Your task to perform on an android device: change keyboard looks Image 0: 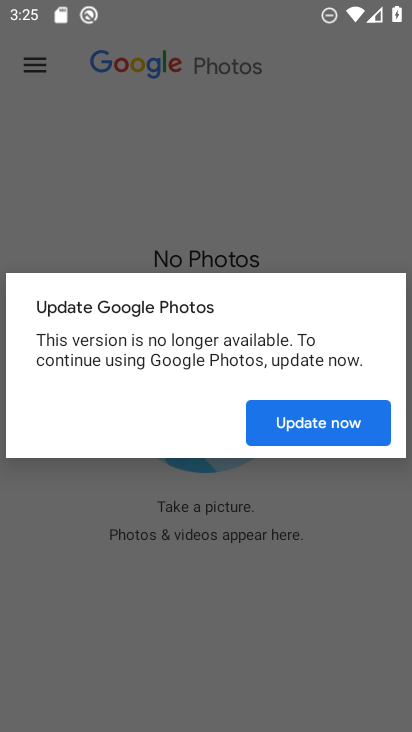
Step 0: press home button
Your task to perform on an android device: change keyboard looks Image 1: 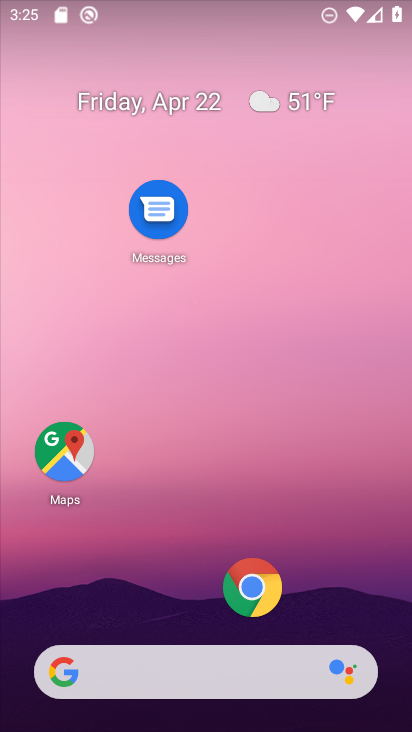
Step 1: drag from (199, 591) to (257, 147)
Your task to perform on an android device: change keyboard looks Image 2: 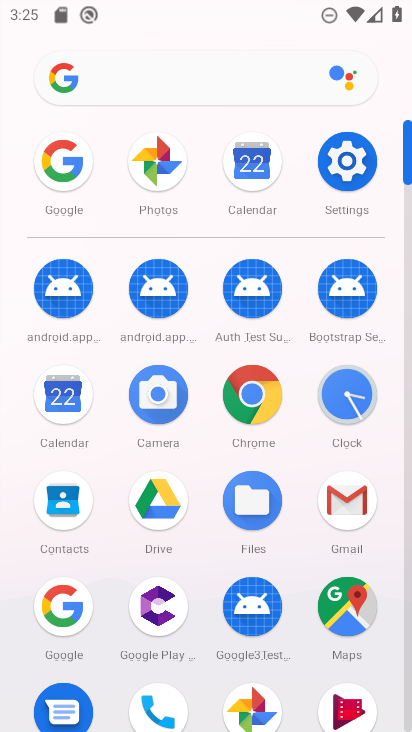
Step 2: click (332, 172)
Your task to perform on an android device: change keyboard looks Image 3: 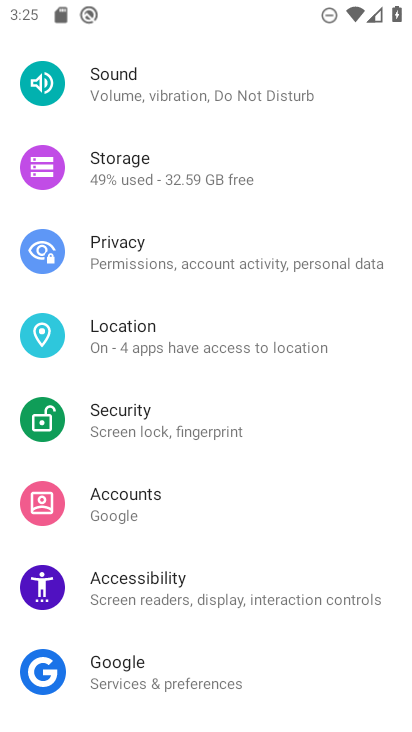
Step 3: drag from (245, 479) to (277, 294)
Your task to perform on an android device: change keyboard looks Image 4: 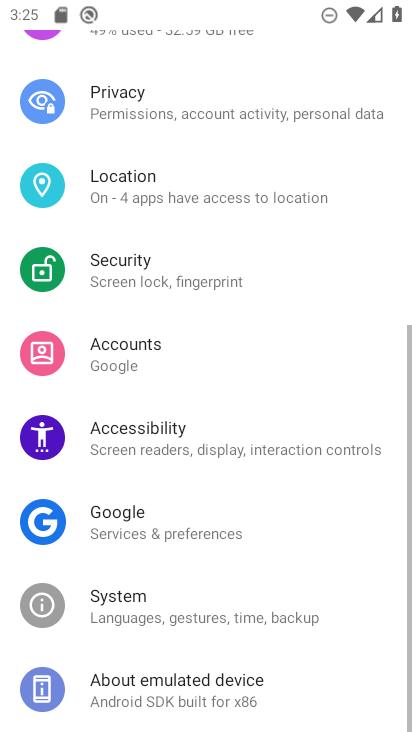
Step 4: drag from (264, 563) to (275, 304)
Your task to perform on an android device: change keyboard looks Image 5: 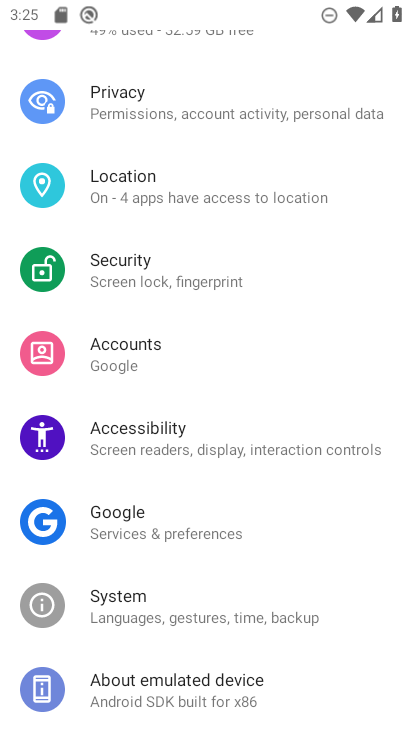
Step 5: drag from (234, 485) to (277, 243)
Your task to perform on an android device: change keyboard looks Image 6: 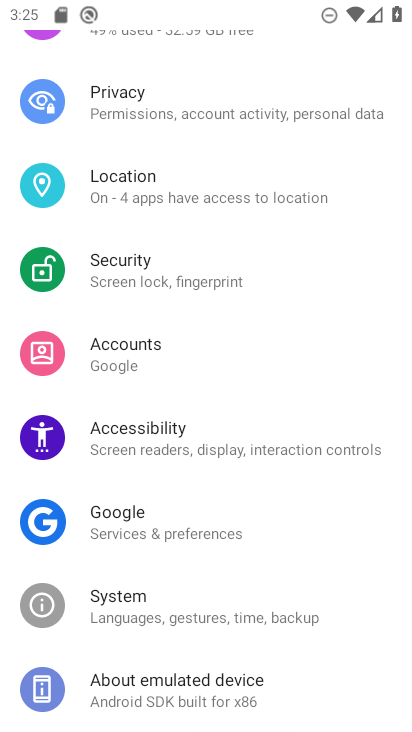
Step 6: click (167, 604)
Your task to perform on an android device: change keyboard looks Image 7: 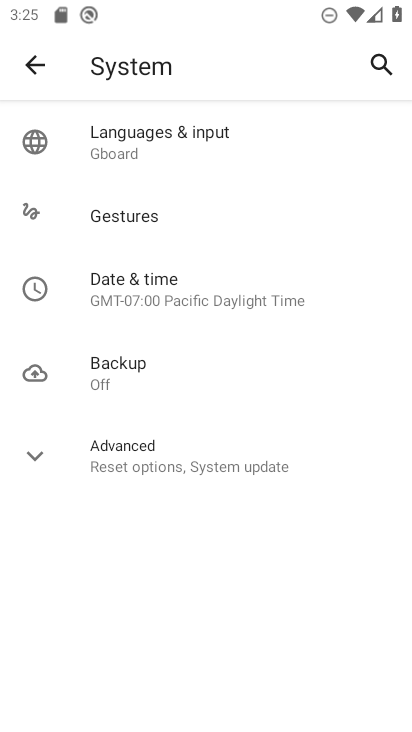
Step 7: click (154, 148)
Your task to perform on an android device: change keyboard looks Image 8: 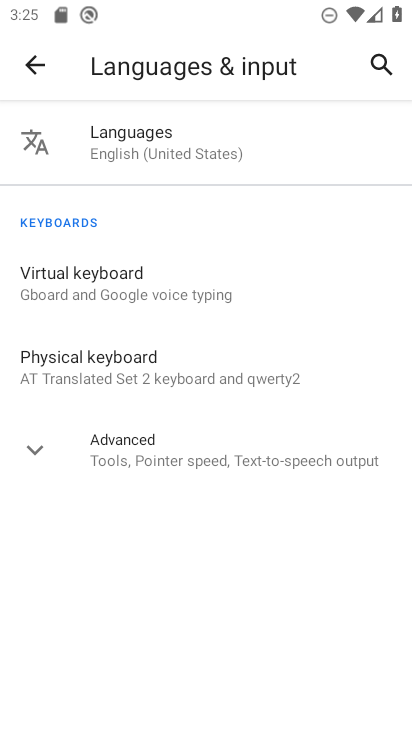
Step 8: click (116, 260)
Your task to perform on an android device: change keyboard looks Image 9: 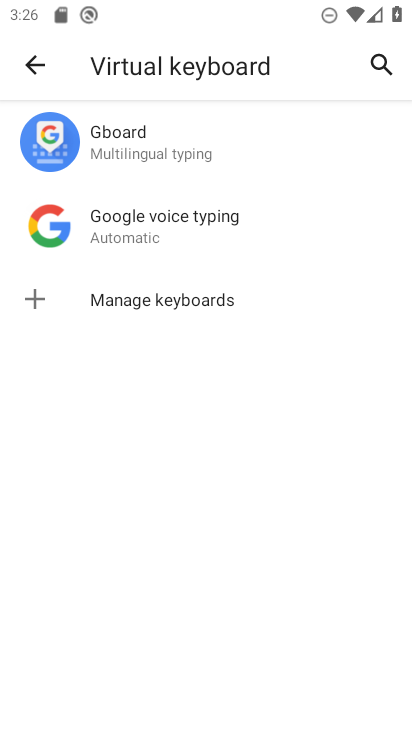
Step 9: click (161, 160)
Your task to perform on an android device: change keyboard looks Image 10: 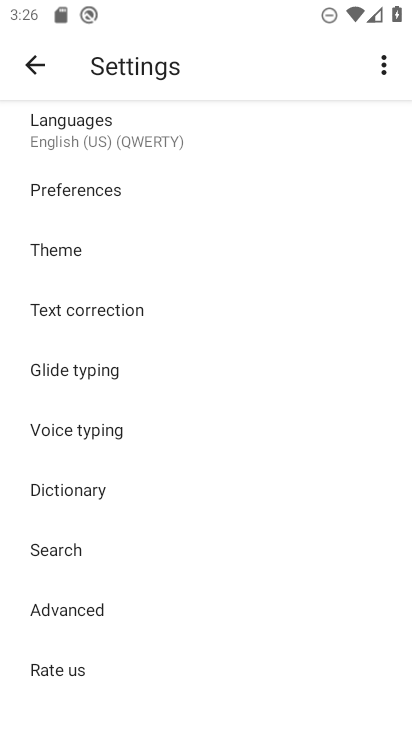
Step 10: click (82, 237)
Your task to perform on an android device: change keyboard looks Image 11: 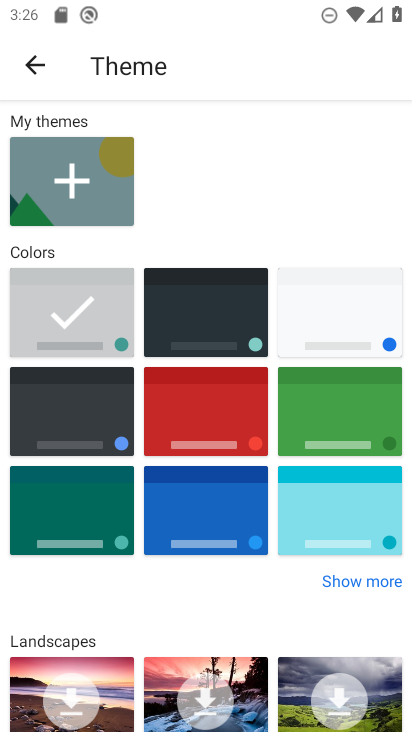
Step 11: click (171, 287)
Your task to perform on an android device: change keyboard looks Image 12: 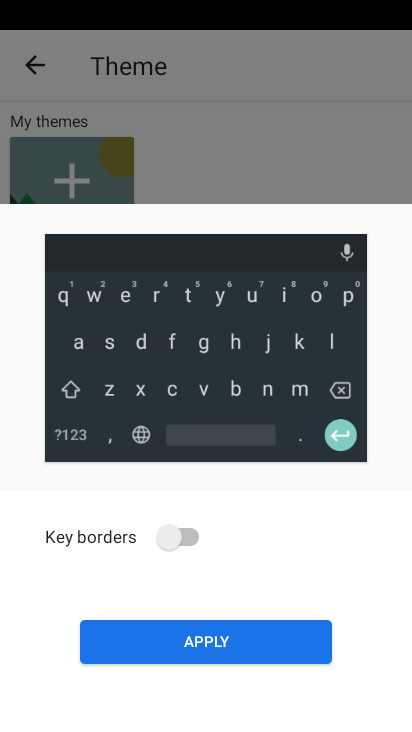
Step 12: click (253, 633)
Your task to perform on an android device: change keyboard looks Image 13: 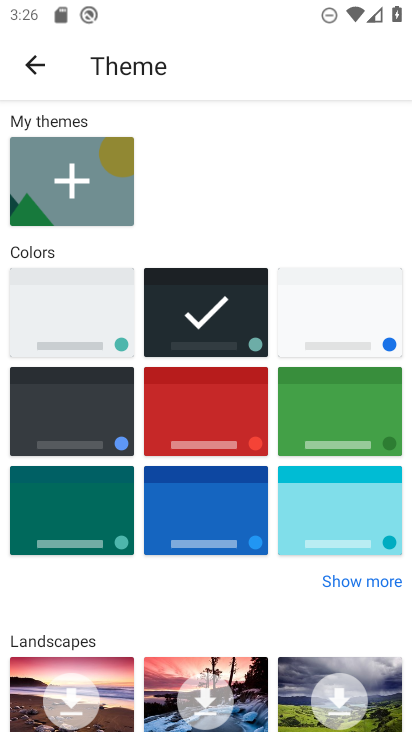
Step 13: task complete